Your task to perform on an android device: Check the weather Image 0: 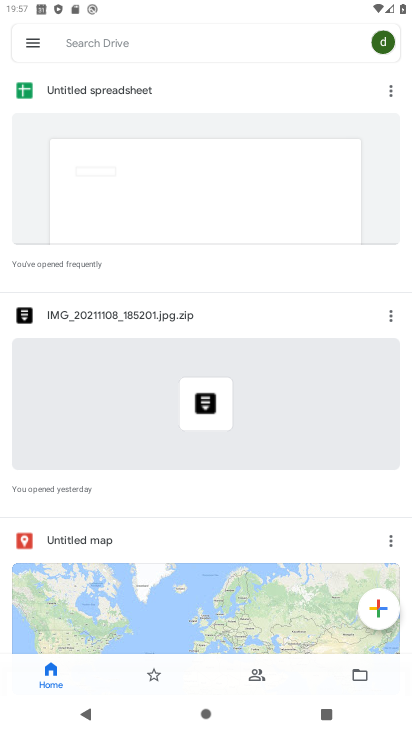
Step 0: press home button
Your task to perform on an android device: Check the weather Image 1: 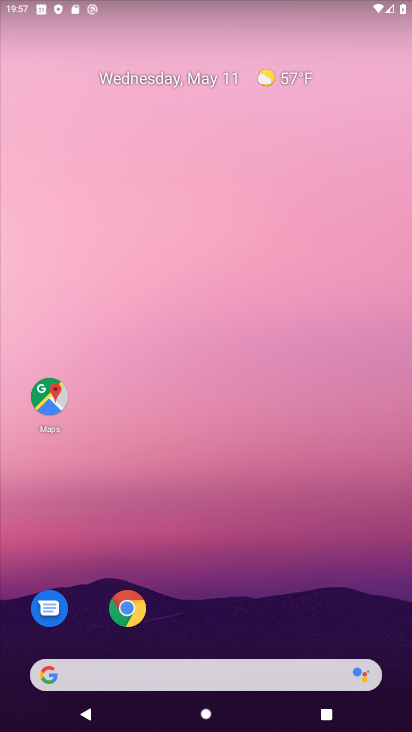
Step 1: click (282, 81)
Your task to perform on an android device: Check the weather Image 2: 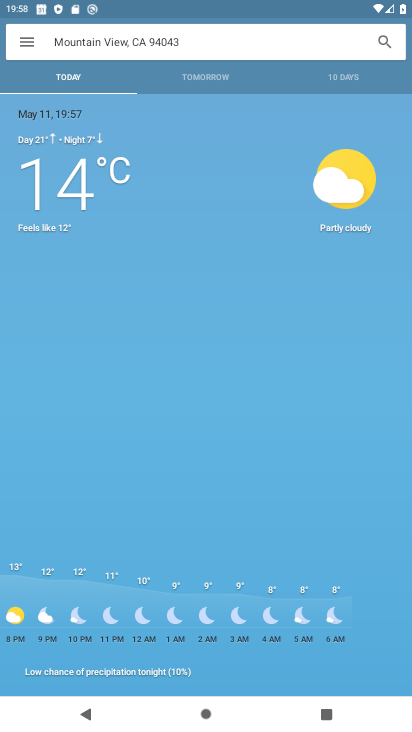
Step 2: task complete